Your task to perform on an android device: turn off notifications in google photos Image 0: 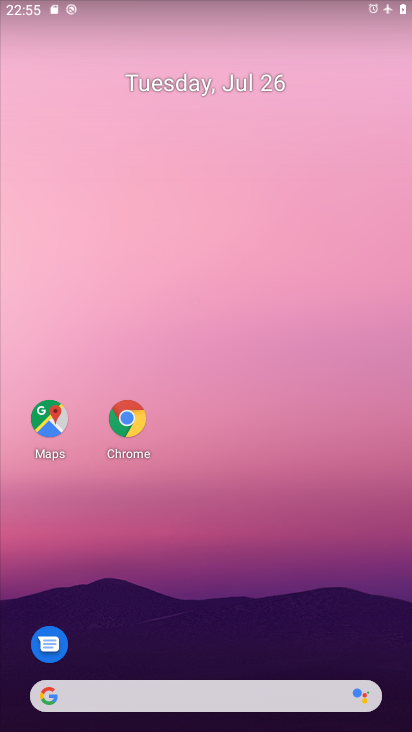
Step 0: drag from (167, 668) to (204, 231)
Your task to perform on an android device: turn off notifications in google photos Image 1: 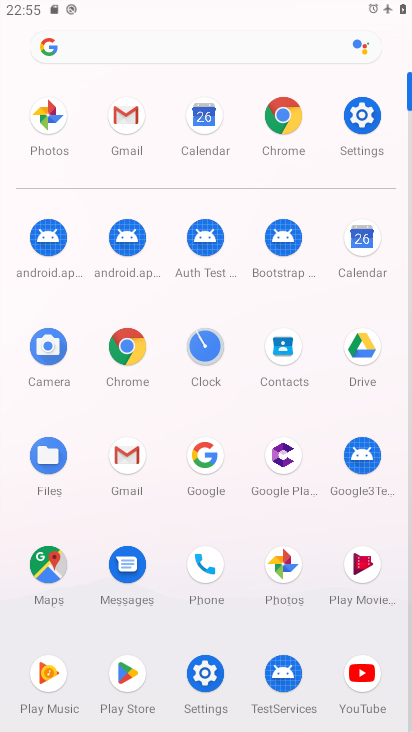
Step 1: click (278, 568)
Your task to perform on an android device: turn off notifications in google photos Image 2: 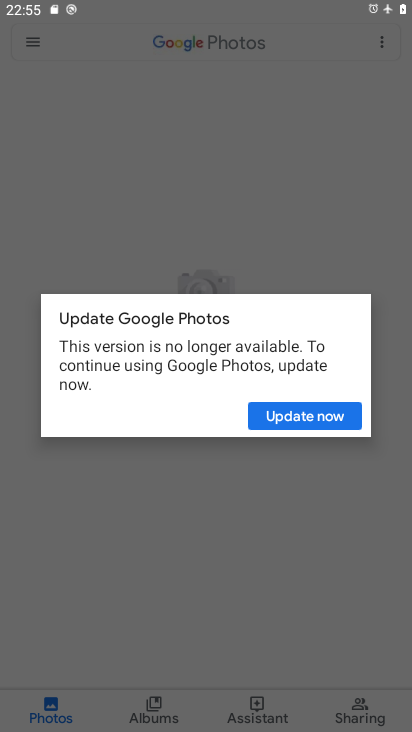
Step 2: click (170, 171)
Your task to perform on an android device: turn off notifications in google photos Image 3: 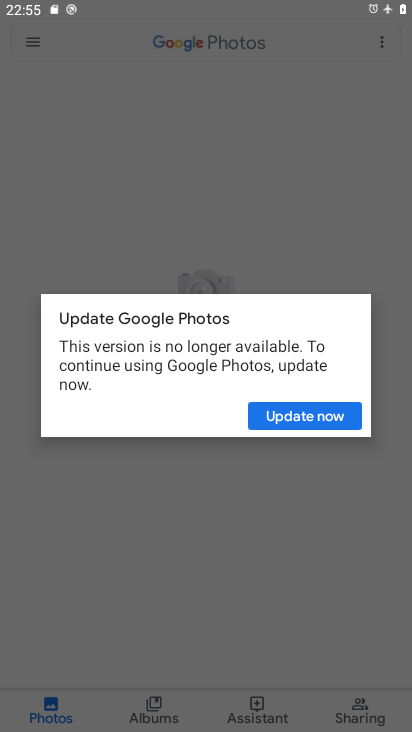
Step 3: click (268, 417)
Your task to perform on an android device: turn off notifications in google photos Image 4: 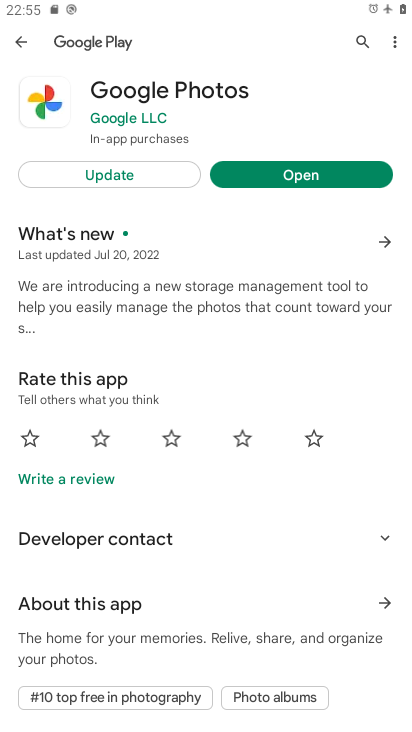
Step 4: press back button
Your task to perform on an android device: turn off notifications in google photos Image 5: 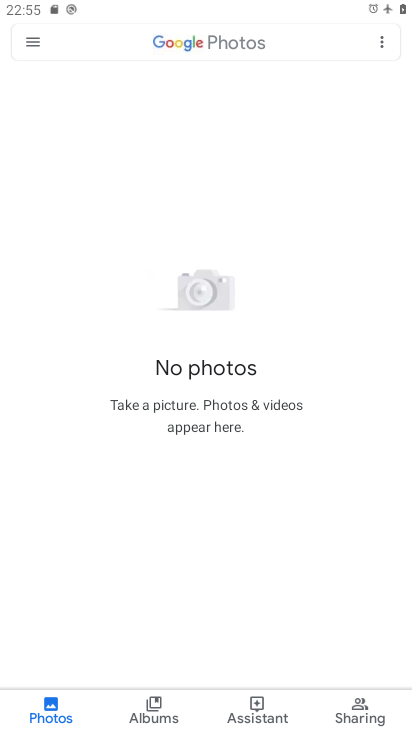
Step 5: click (34, 36)
Your task to perform on an android device: turn off notifications in google photos Image 6: 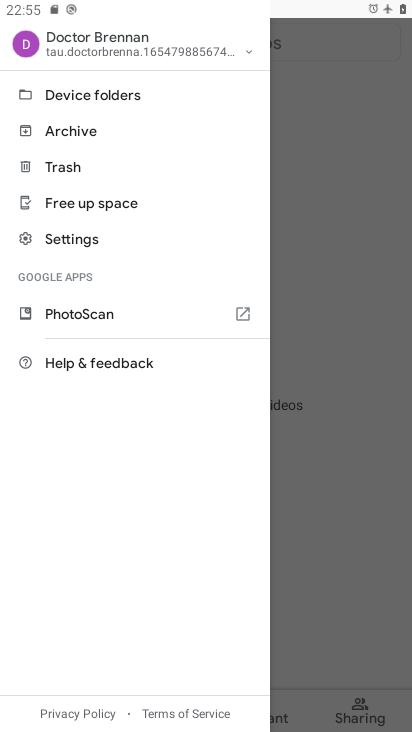
Step 6: click (60, 244)
Your task to perform on an android device: turn off notifications in google photos Image 7: 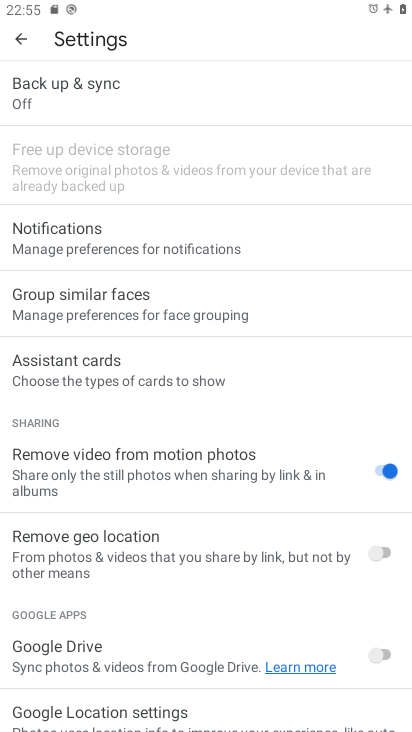
Step 7: click (74, 224)
Your task to perform on an android device: turn off notifications in google photos Image 8: 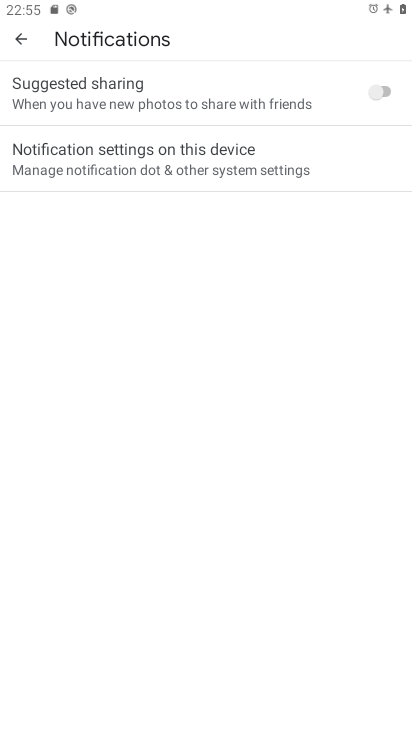
Step 8: click (207, 175)
Your task to perform on an android device: turn off notifications in google photos Image 9: 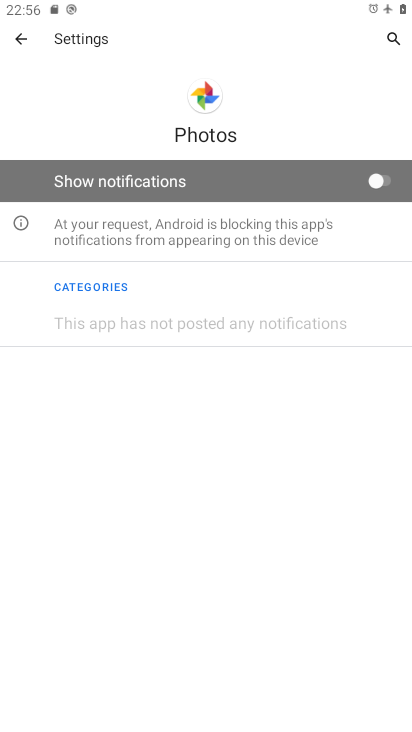
Step 9: task complete